Your task to perform on an android device: delete the emails in spam in the gmail app Image 0: 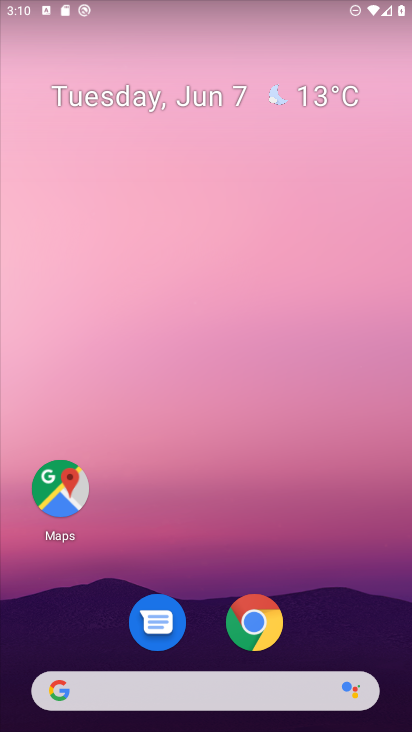
Step 0: drag from (336, 624) to (246, 38)
Your task to perform on an android device: delete the emails in spam in the gmail app Image 1: 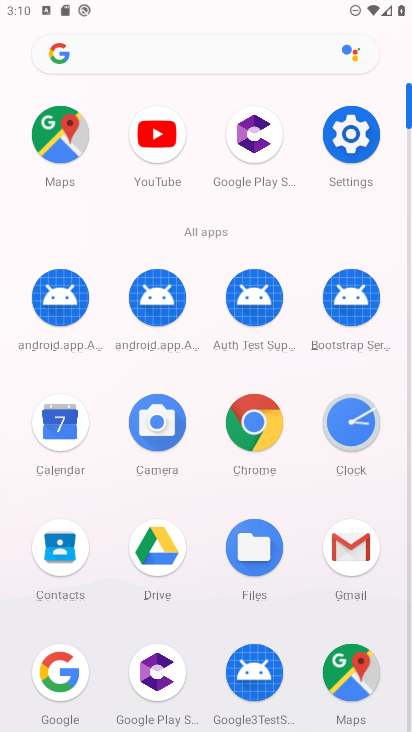
Step 1: click (345, 545)
Your task to perform on an android device: delete the emails in spam in the gmail app Image 2: 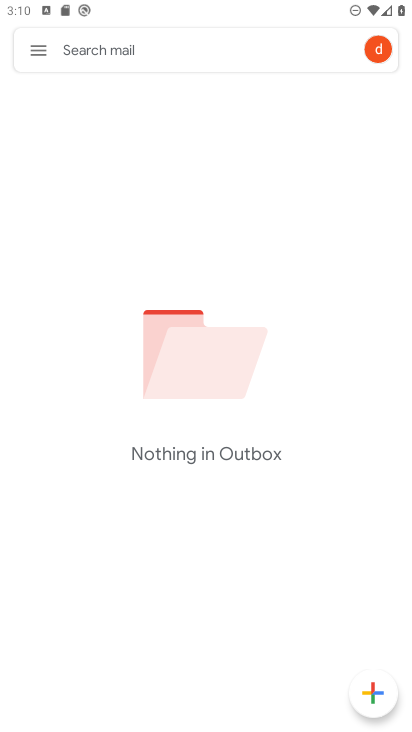
Step 2: click (36, 46)
Your task to perform on an android device: delete the emails in spam in the gmail app Image 3: 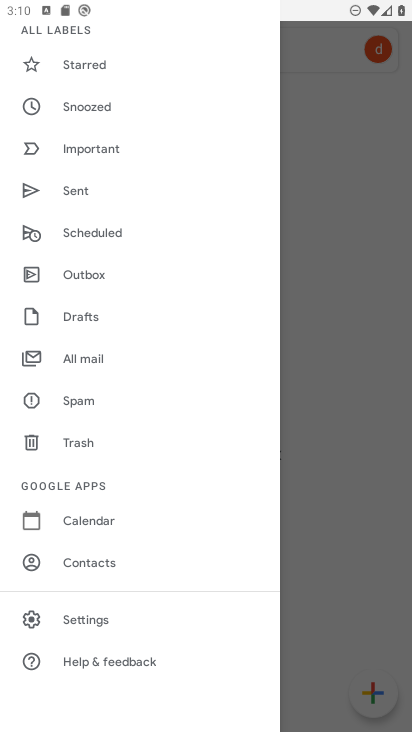
Step 3: click (72, 398)
Your task to perform on an android device: delete the emails in spam in the gmail app Image 4: 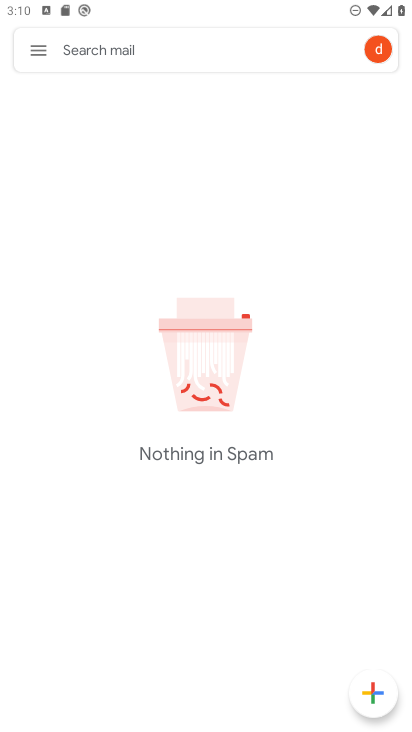
Step 4: task complete